Your task to perform on an android device: toggle pop-ups in chrome Image 0: 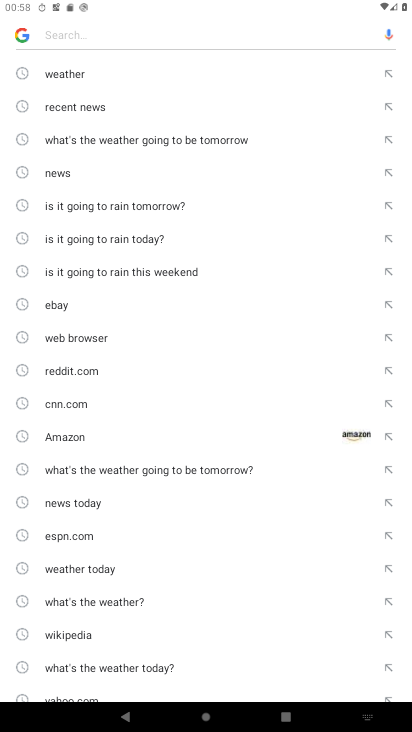
Step 0: press home button
Your task to perform on an android device: toggle pop-ups in chrome Image 1: 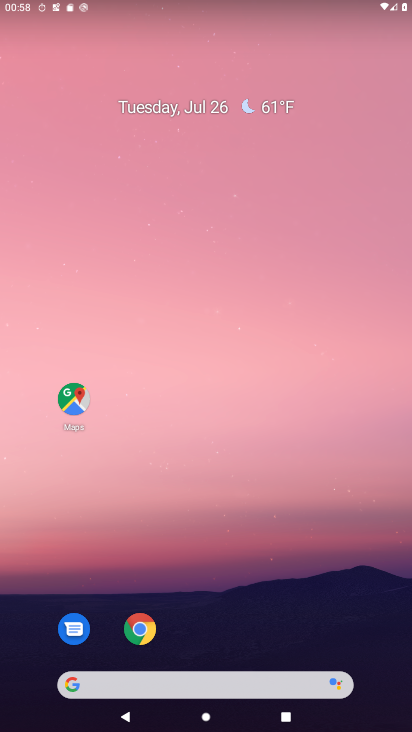
Step 1: click (133, 639)
Your task to perform on an android device: toggle pop-ups in chrome Image 2: 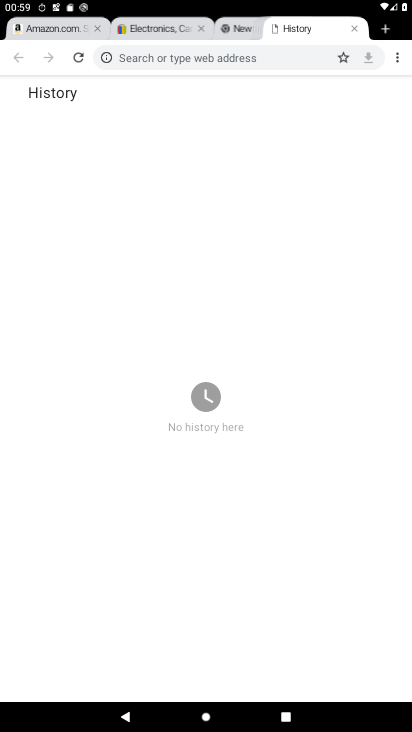
Step 2: click (395, 64)
Your task to perform on an android device: toggle pop-ups in chrome Image 3: 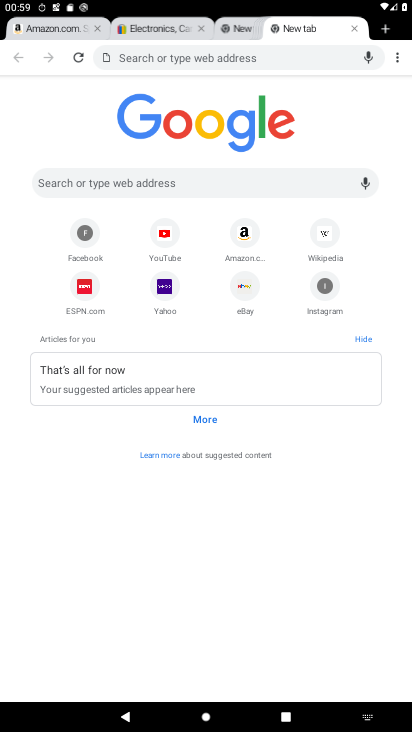
Step 3: drag from (395, 64) to (313, 256)
Your task to perform on an android device: toggle pop-ups in chrome Image 4: 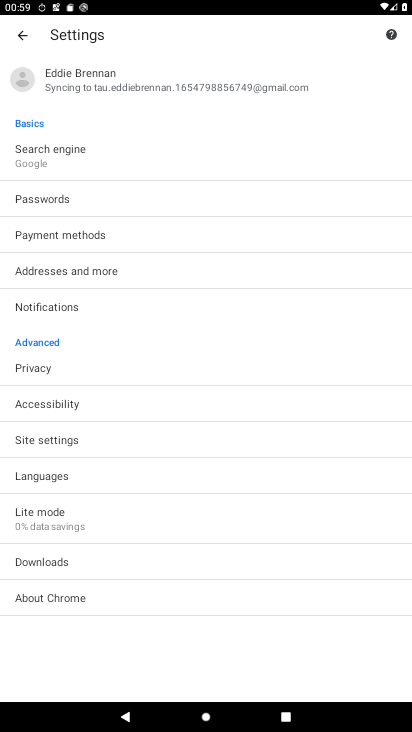
Step 4: click (101, 444)
Your task to perform on an android device: toggle pop-ups in chrome Image 5: 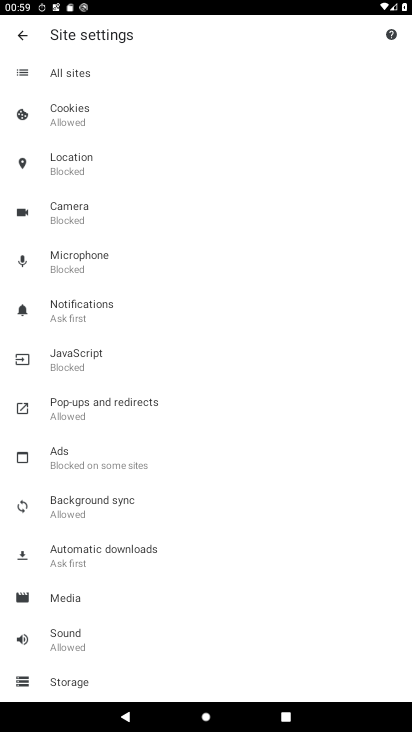
Step 5: click (122, 419)
Your task to perform on an android device: toggle pop-ups in chrome Image 6: 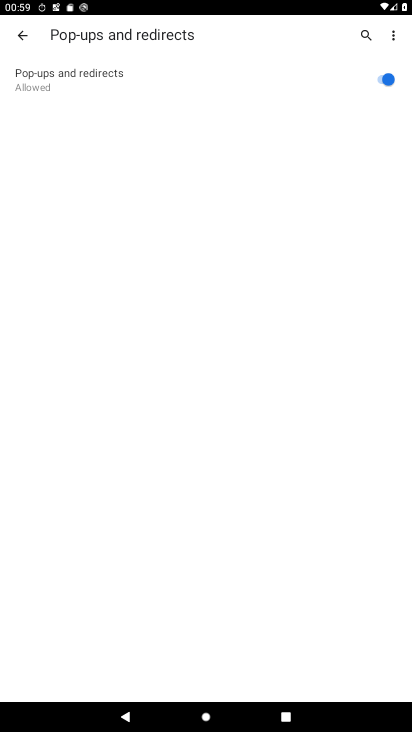
Step 6: click (373, 82)
Your task to perform on an android device: toggle pop-ups in chrome Image 7: 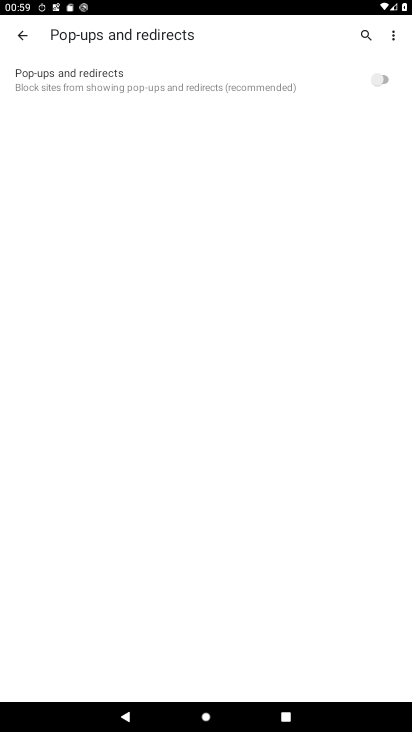
Step 7: task complete